Your task to perform on an android device: turn pop-ups on in chrome Image 0: 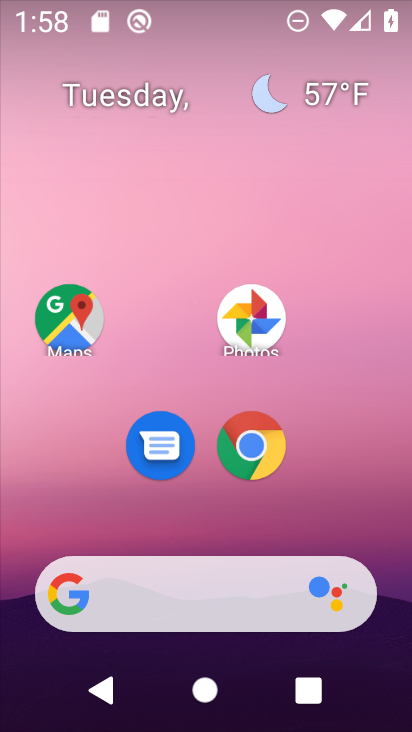
Step 0: drag from (375, 537) to (361, 202)
Your task to perform on an android device: turn pop-ups on in chrome Image 1: 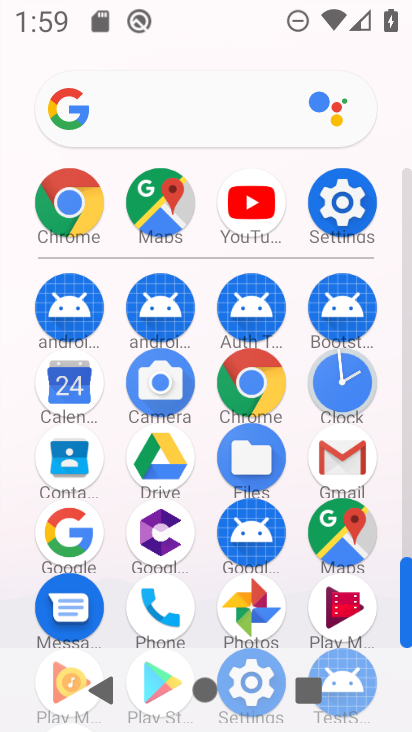
Step 1: click (254, 392)
Your task to perform on an android device: turn pop-ups on in chrome Image 2: 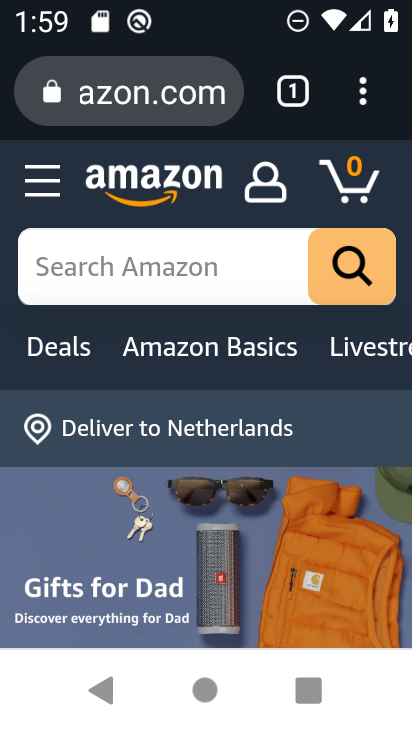
Step 2: click (370, 108)
Your task to perform on an android device: turn pop-ups on in chrome Image 3: 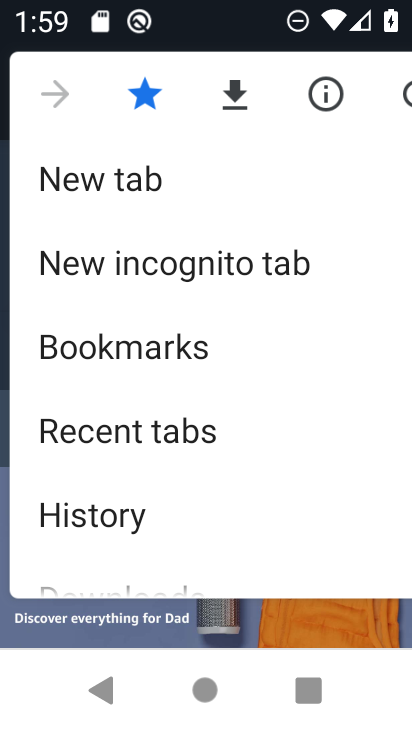
Step 3: drag from (339, 457) to (355, 283)
Your task to perform on an android device: turn pop-ups on in chrome Image 4: 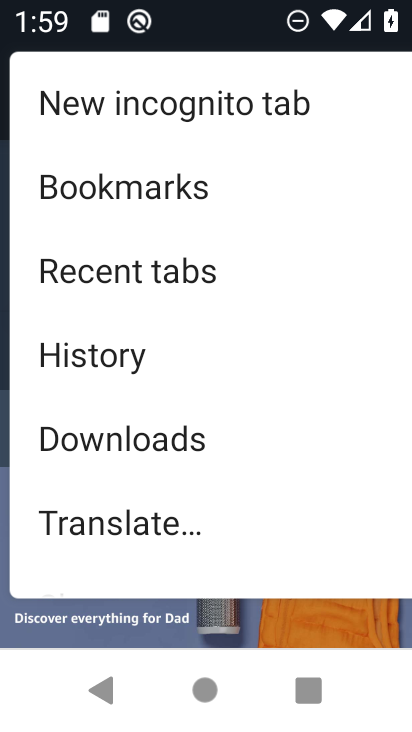
Step 4: drag from (352, 429) to (358, 335)
Your task to perform on an android device: turn pop-ups on in chrome Image 5: 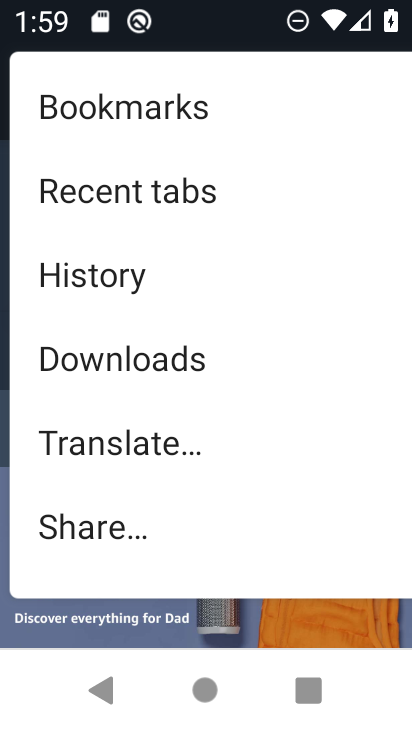
Step 5: drag from (345, 462) to (321, 330)
Your task to perform on an android device: turn pop-ups on in chrome Image 6: 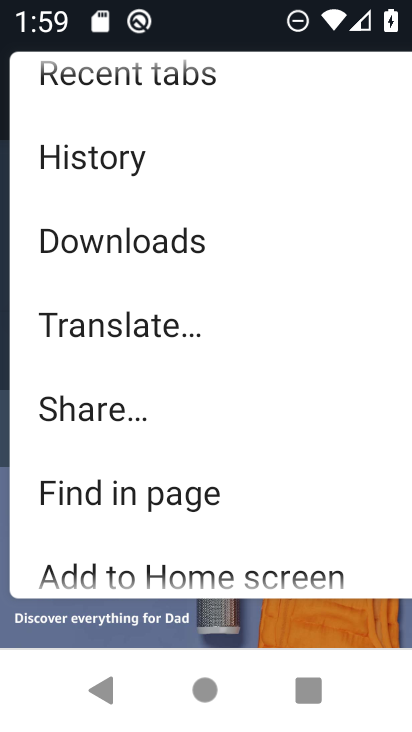
Step 6: drag from (321, 490) to (315, 352)
Your task to perform on an android device: turn pop-ups on in chrome Image 7: 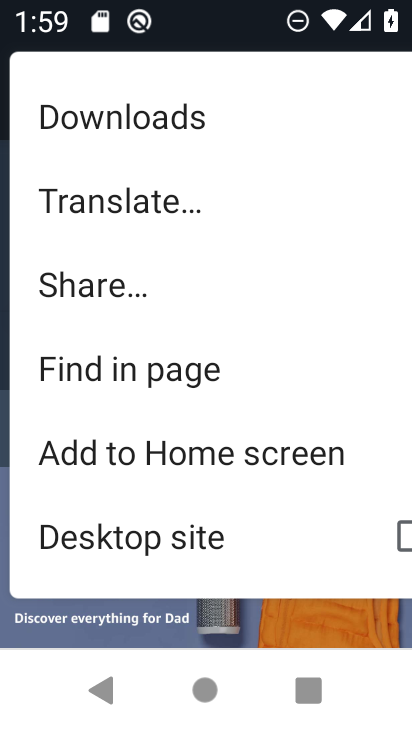
Step 7: drag from (302, 501) to (282, 301)
Your task to perform on an android device: turn pop-ups on in chrome Image 8: 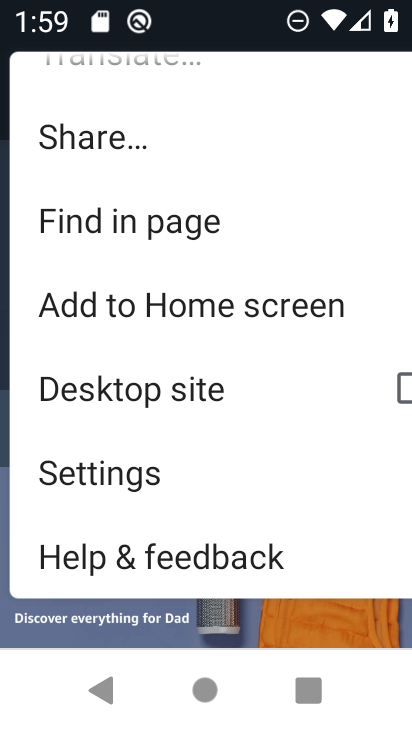
Step 8: click (100, 489)
Your task to perform on an android device: turn pop-ups on in chrome Image 9: 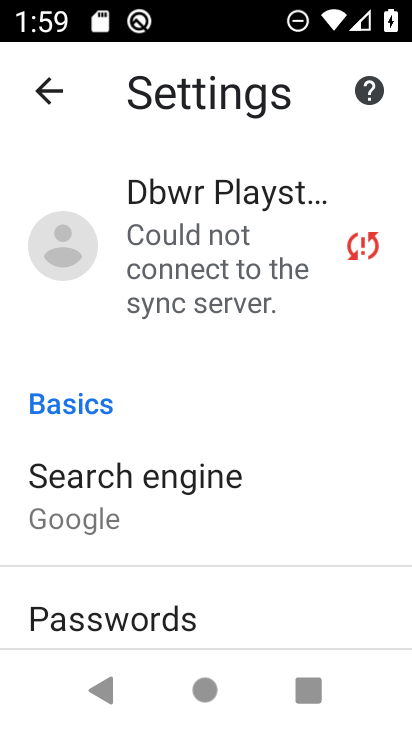
Step 9: drag from (284, 567) to (310, 486)
Your task to perform on an android device: turn pop-ups on in chrome Image 10: 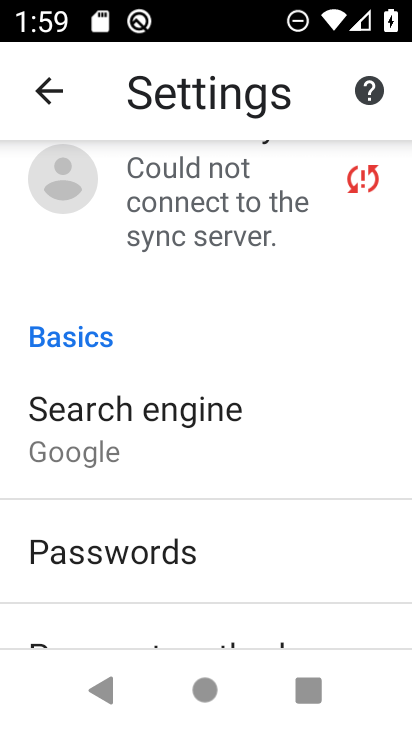
Step 10: drag from (308, 607) to (313, 516)
Your task to perform on an android device: turn pop-ups on in chrome Image 11: 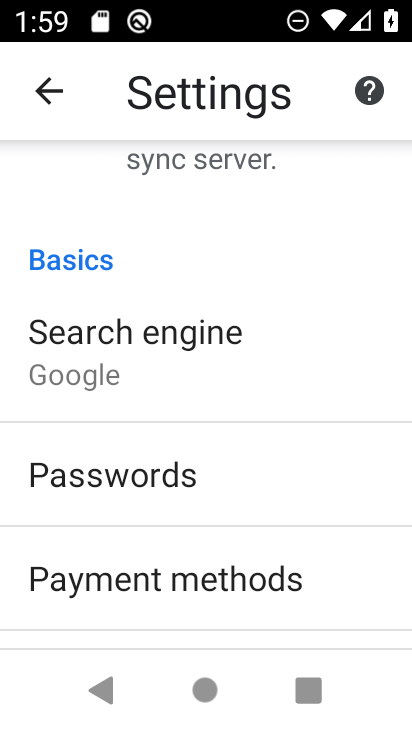
Step 11: drag from (358, 592) to (363, 469)
Your task to perform on an android device: turn pop-ups on in chrome Image 12: 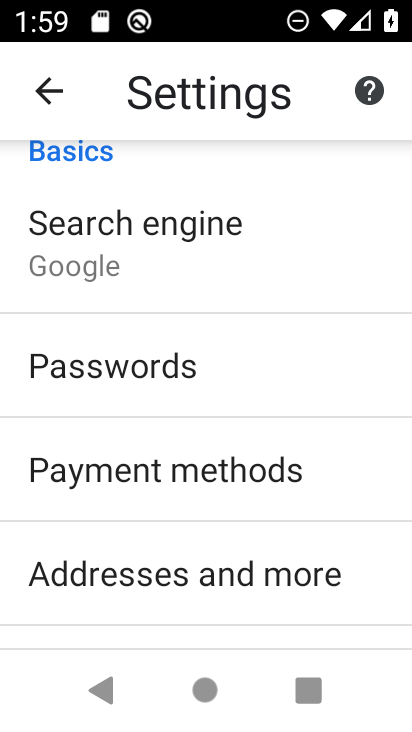
Step 12: drag from (364, 598) to (360, 468)
Your task to perform on an android device: turn pop-ups on in chrome Image 13: 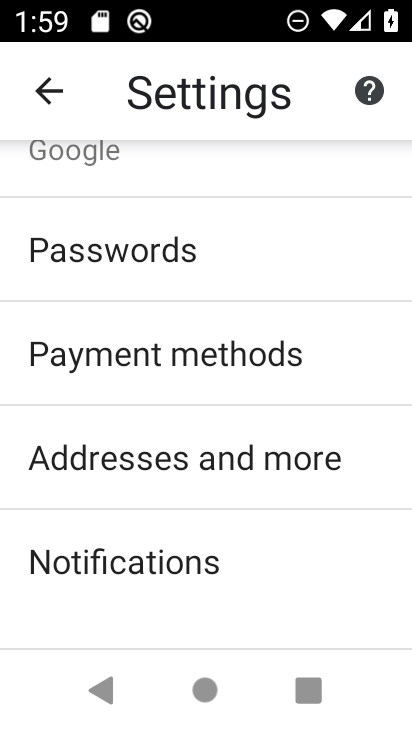
Step 13: drag from (361, 607) to (375, 456)
Your task to perform on an android device: turn pop-ups on in chrome Image 14: 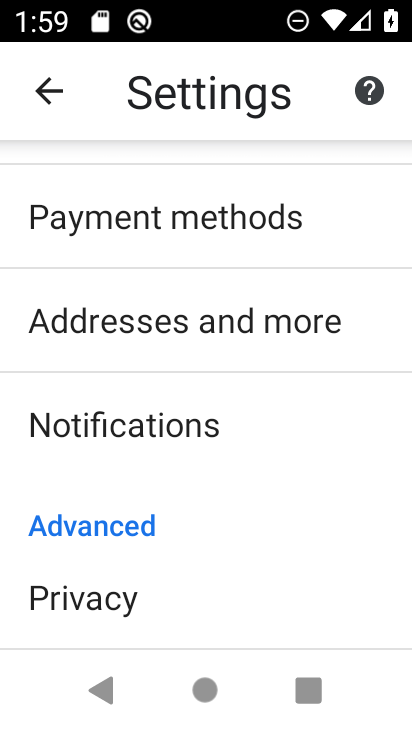
Step 14: drag from (343, 591) to (330, 435)
Your task to perform on an android device: turn pop-ups on in chrome Image 15: 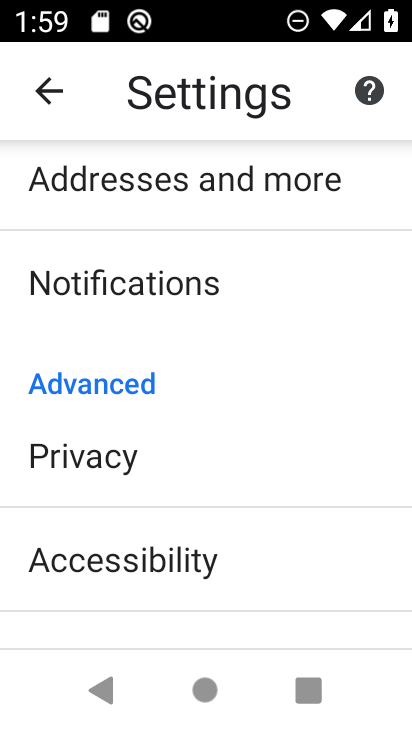
Step 15: drag from (298, 599) to (283, 432)
Your task to perform on an android device: turn pop-ups on in chrome Image 16: 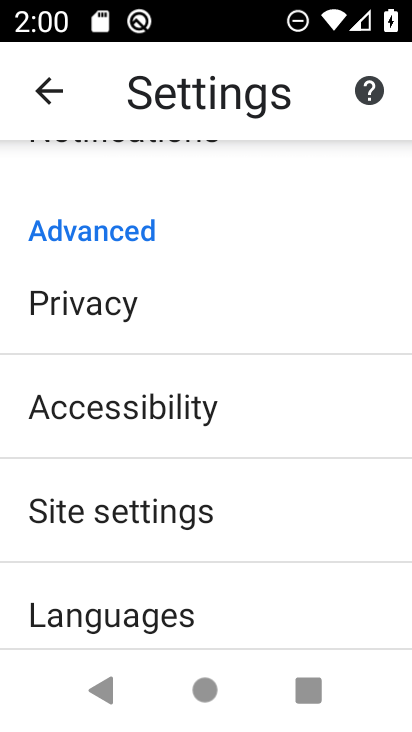
Step 16: click (261, 517)
Your task to perform on an android device: turn pop-ups on in chrome Image 17: 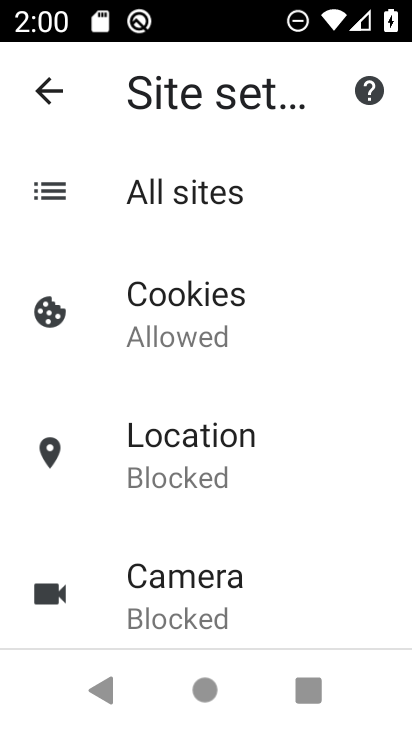
Step 17: drag from (333, 581) to (355, 442)
Your task to perform on an android device: turn pop-ups on in chrome Image 18: 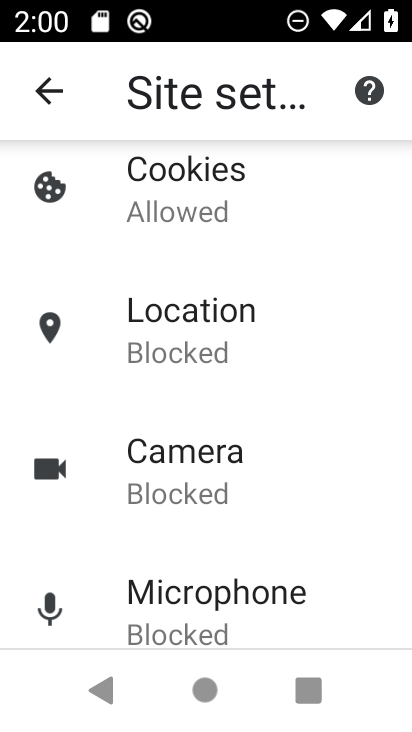
Step 18: drag from (354, 607) to (347, 442)
Your task to perform on an android device: turn pop-ups on in chrome Image 19: 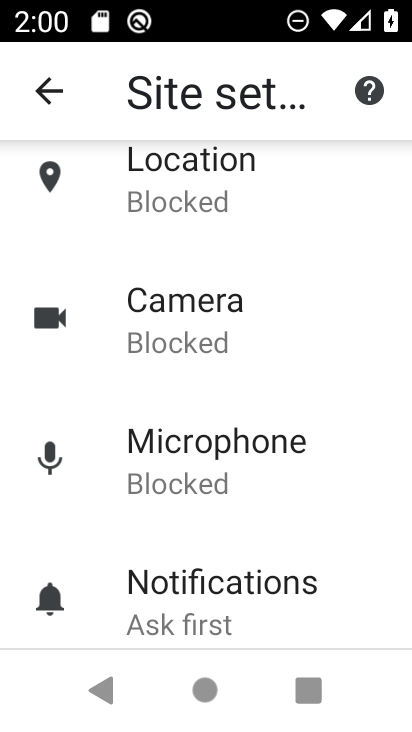
Step 19: drag from (328, 617) to (336, 439)
Your task to perform on an android device: turn pop-ups on in chrome Image 20: 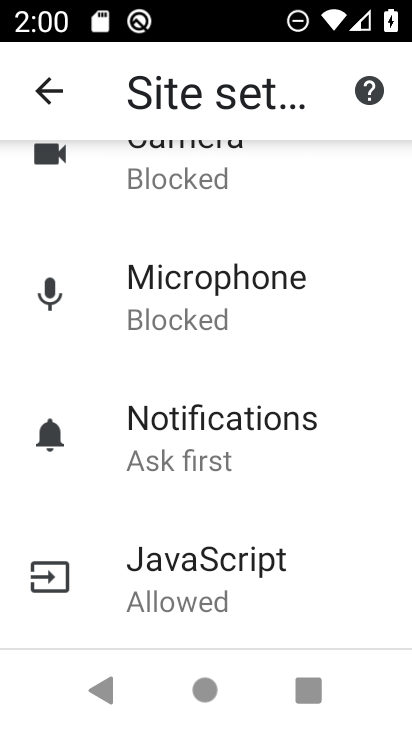
Step 20: drag from (346, 606) to (338, 453)
Your task to perform on an android device: turn pop-ups on in chrome Image 21: 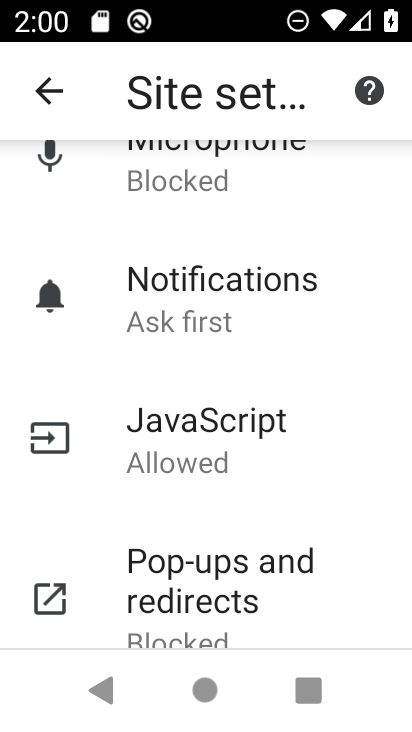
Step 21: drag from (344, 625) to (343, 474)
Your task to perform on an android device: turn pop-ups on in chrome Image 22: 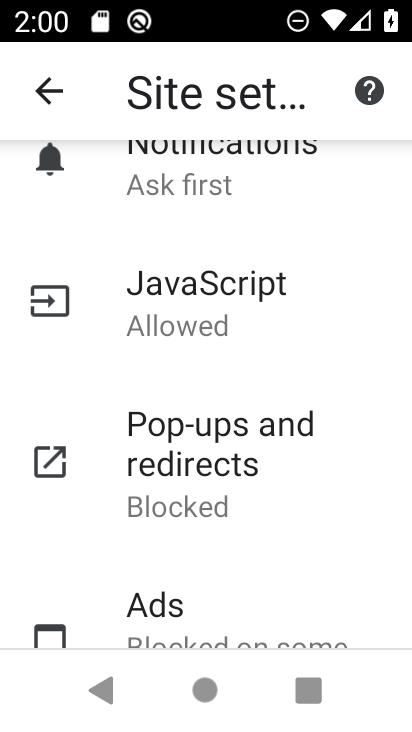
Step 22: click (214, 447)
Your task to perform on an android device: turn pop-ups on in chrome Image 23: 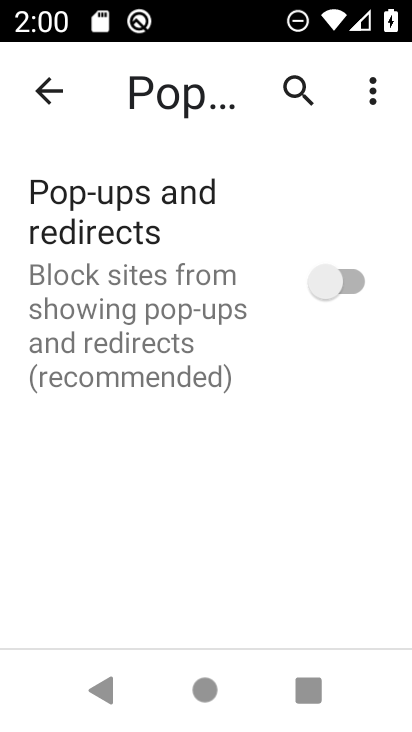
Step 23: click (338, 283)
Your task to perform on an android device: turn pop-ups on in chrome Image 24: 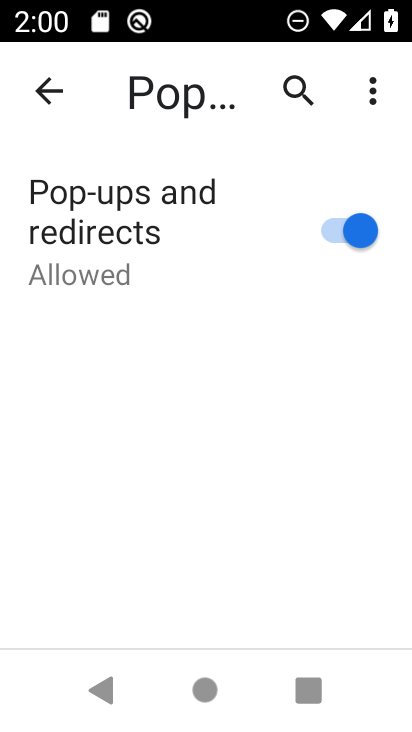
Step 24: task complete